Your task to perform on an android device: change notifications settings Image 0: 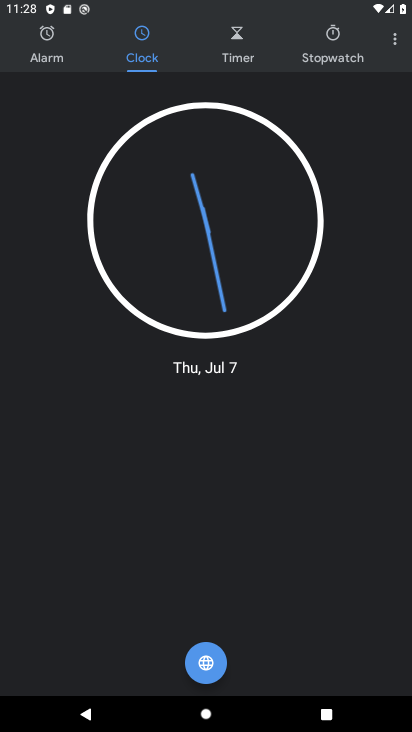
Step 0: press home button
Your task to perform on an android device: change notifications settings Image 1: 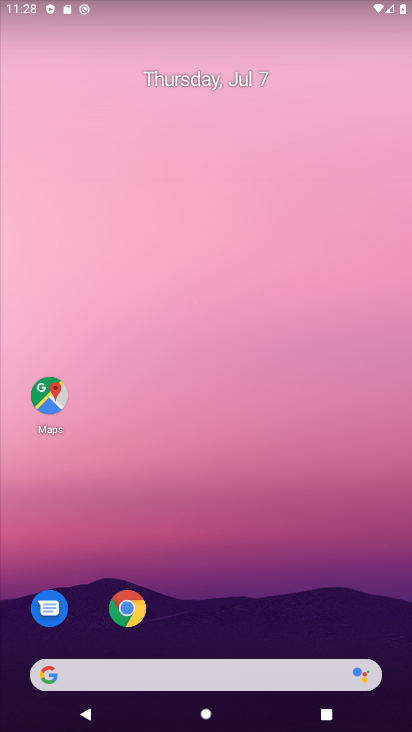
Step 1: drag from (259, 609) to (191, 27)
Your task to perform on an android device: change notifications settings Image 2: 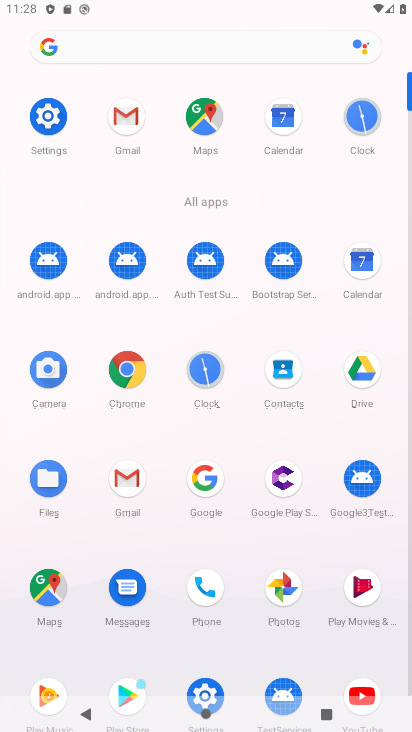
Step 2: click (55, 113)
Your task to perform on an android device: change notifications settings Image 3: 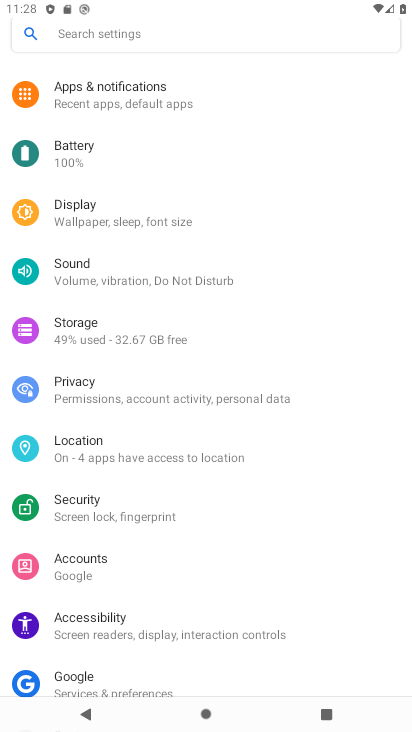
Step 3: click (98, 99)
Your task to perform on an android device: change notifications settings Image 4: 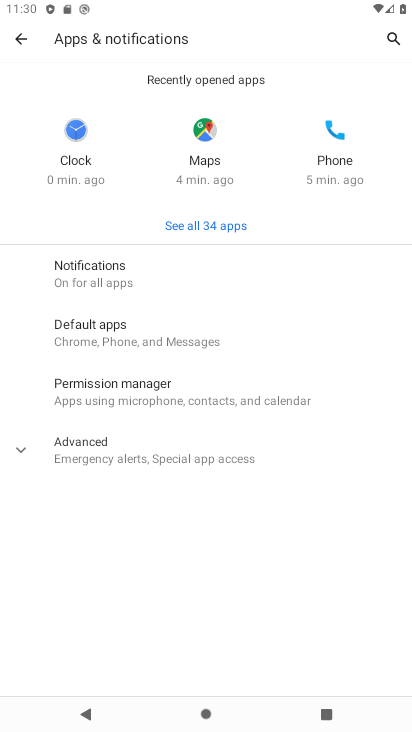
Step 4: task complete